Your task to perform on an android device: change the clock display to digital Image 0: 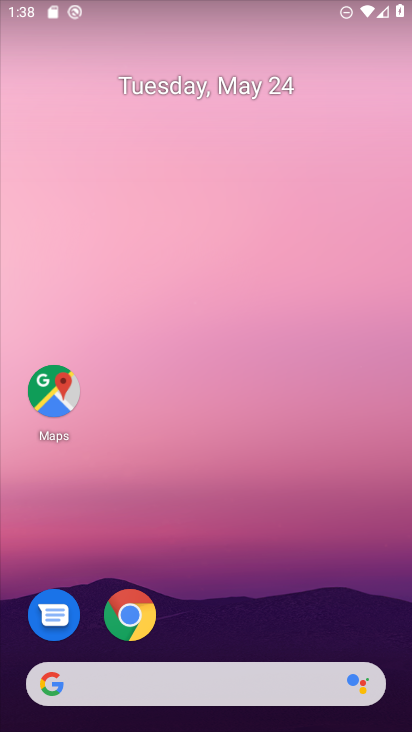
Step 0: drag from (174, 635) to (262, 132)
Your task to perform on an android device: change the clock display to digital Image 1: 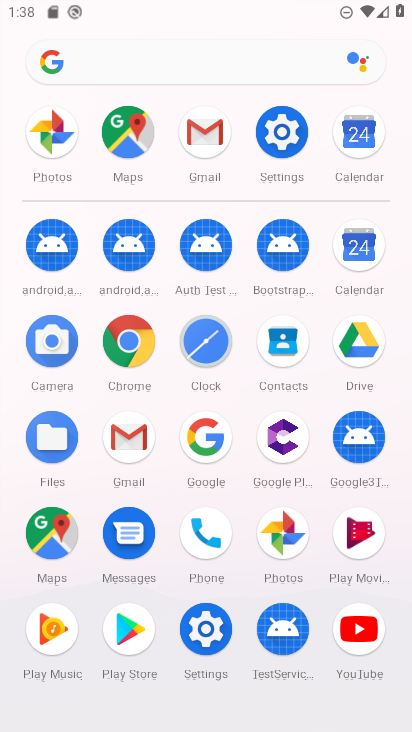
Step 1: click (208, 346)
Your task to perform on an android device: change the clock display to digital Image 2: 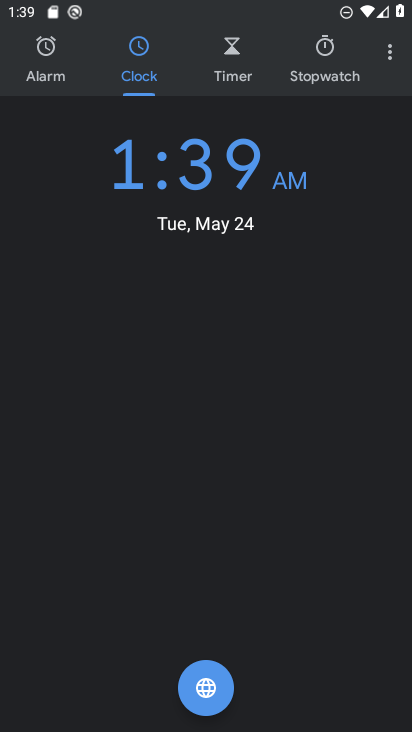
Step 2: click (384, 58)
Your task to perform on an android device: change the clock display to digital Image 3: 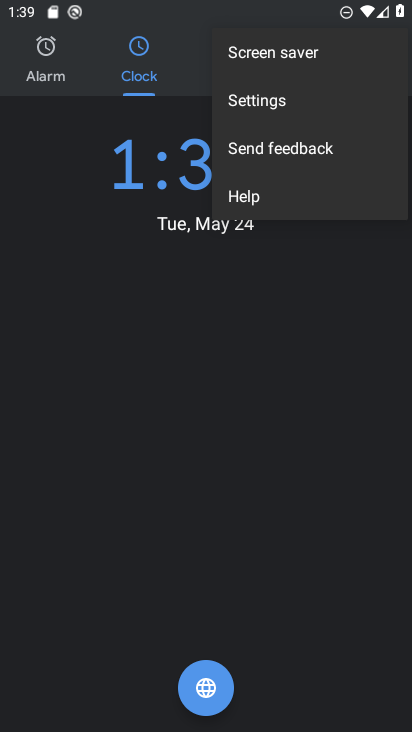
Step 3: click (326, 102)
Your task to perform on an android device: change the clock display to digital Image 4: 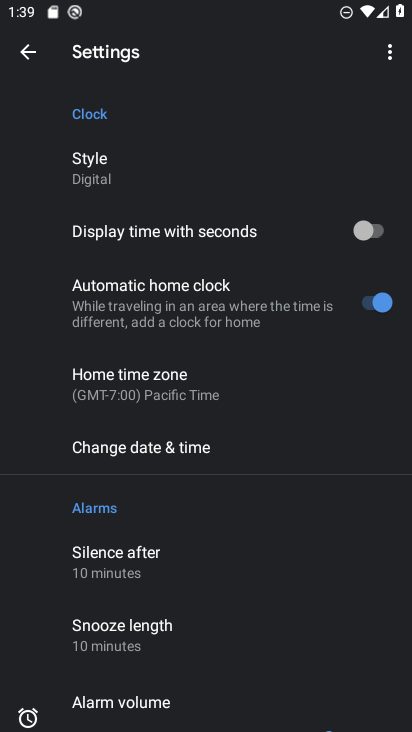
Step 4: task complete